Your task to perform on an android device: Play the last video I watched on Youtube Image 0: 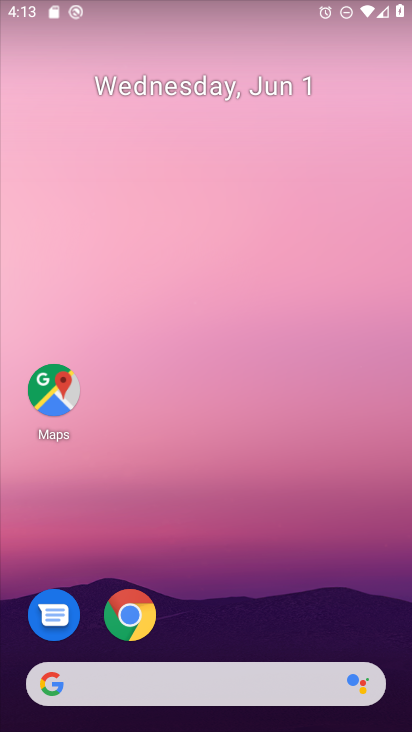
Step 0: press home button
Your task to perform on an android device: Play the last video I watched on Youtube Image 1: 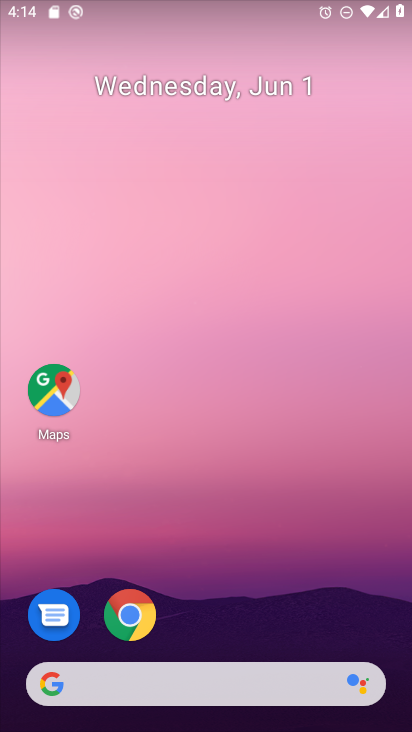
Step 1: drag from (213, 646) to (208, 1)
Your task to perform on an android device: Play the last video I watched on Youtube Image 2: 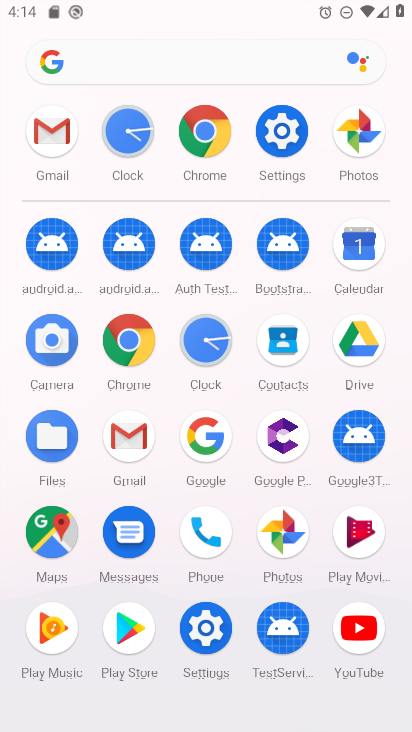
Step 2: click (356, 619)
Your task to perform on an android device: Play the last video I watched on Youtube Image 3: 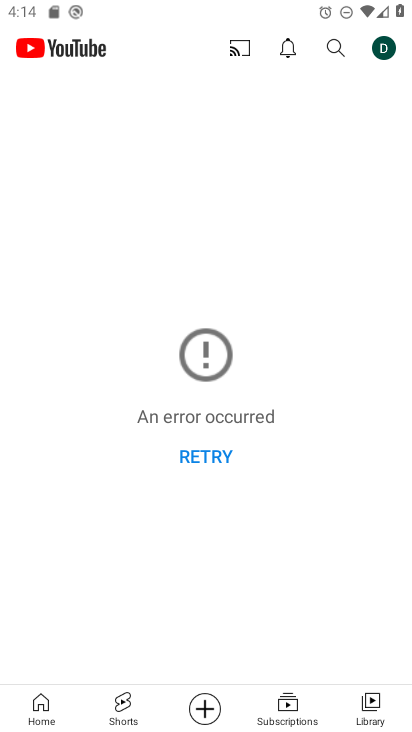
Step 3: click (370, 705)
Your task to perform on an android device: Play the last video I watched on Youtube Image 4: 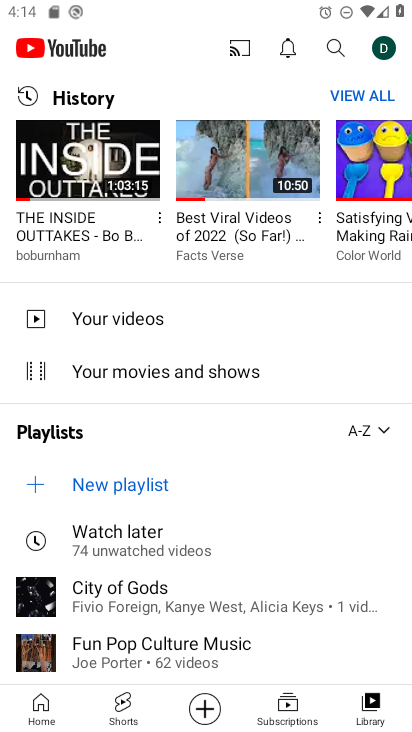
Step 4: click (92, 144)
Your task to perform on an android device: Play the last video I watched on Youtube Image 5: 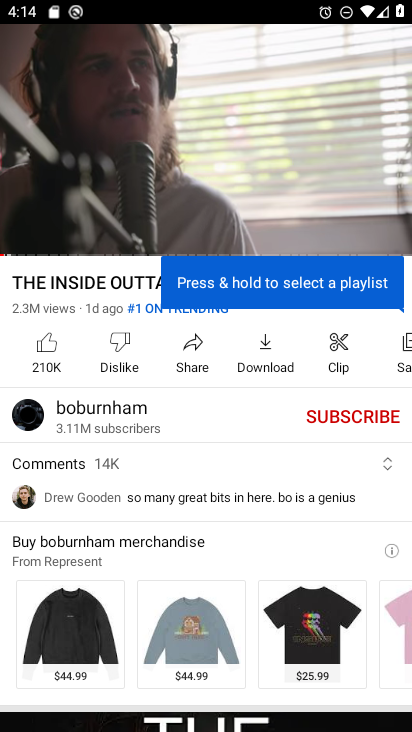
Step 5: task complete